Your task to perform on an android device: Clear the cart on amazon. Add usb-b to the cart on amazon Image 0: 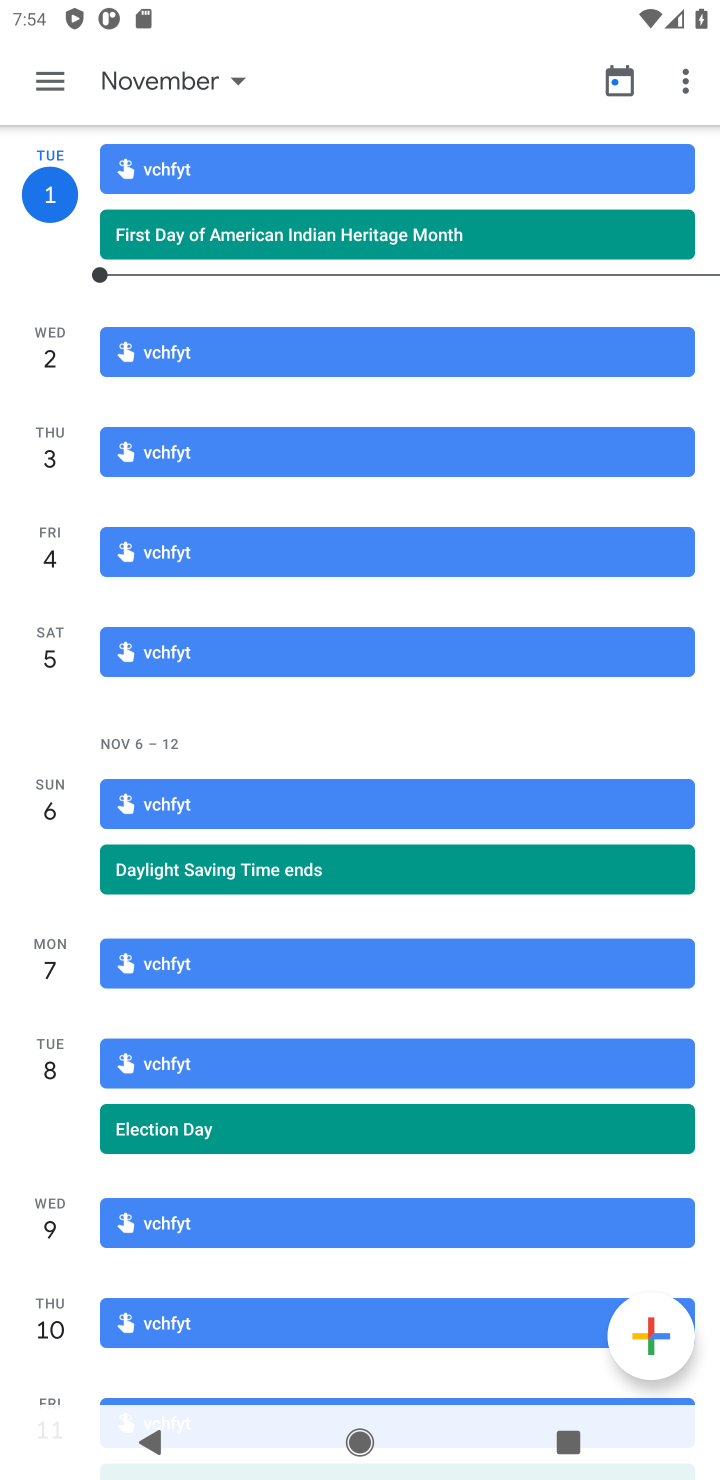
Step 0: press home button
Your task to perform on an android device: Clear the cart on amazon. Add usb-b to the cart on amazon Image 1: 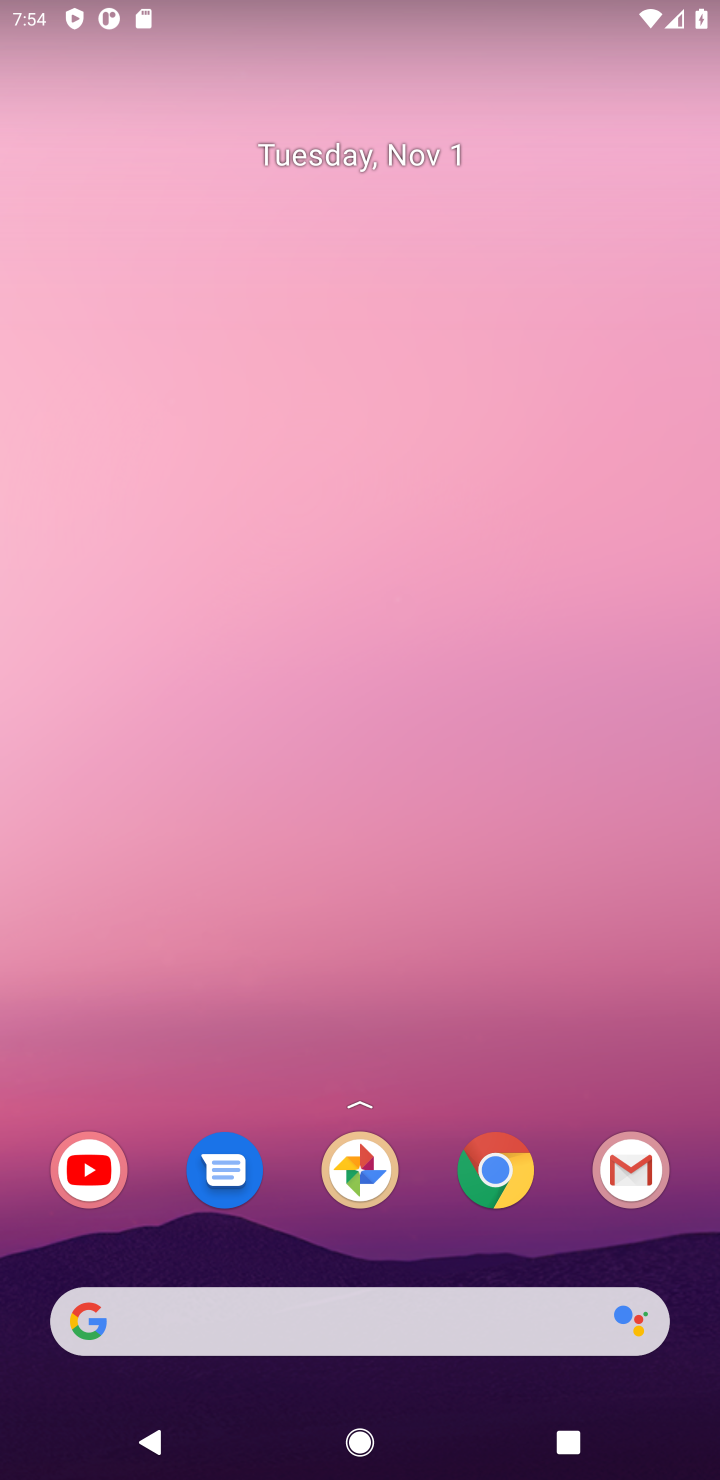
Step 1: click (485, 1169)
Your task to perform on an android device: Clear the cart on amazon. Add usb-b to the cart on amazon Image 2: 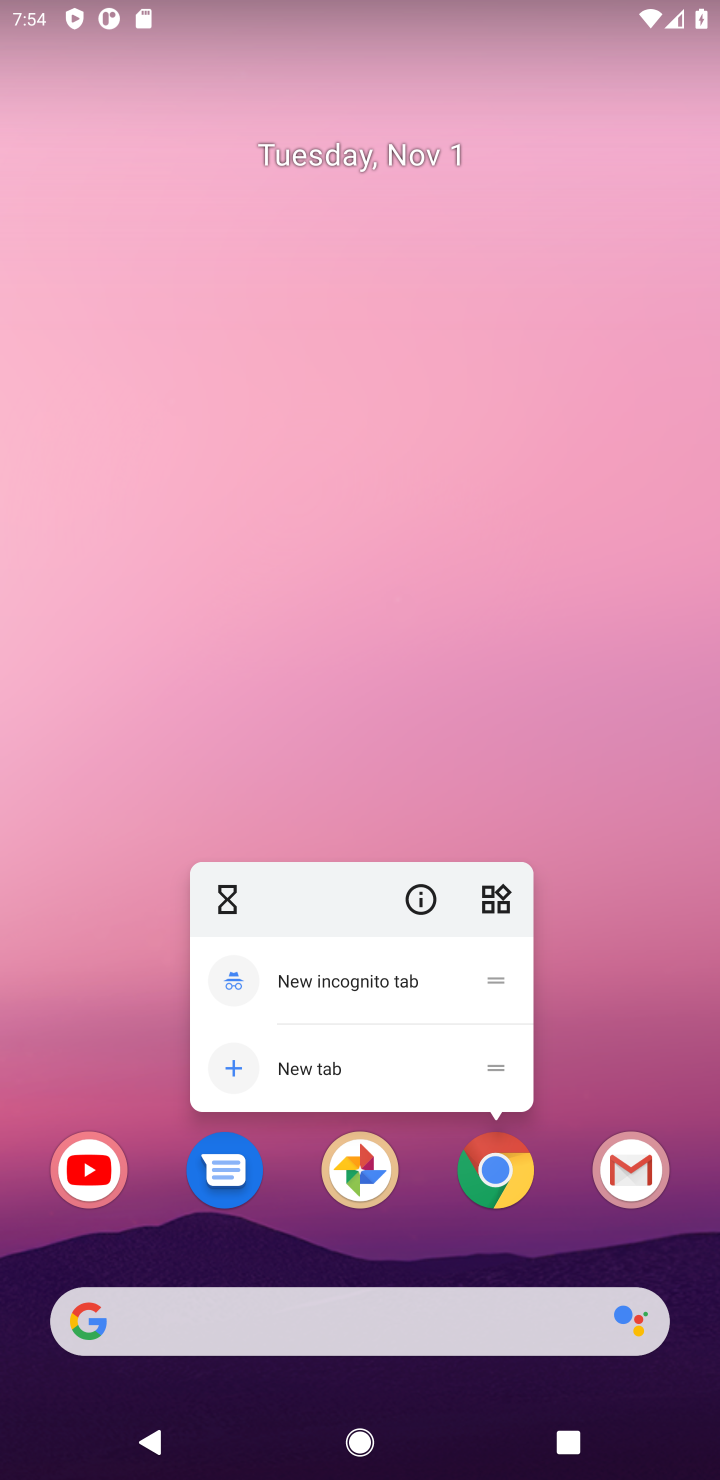
Step 2: click (520, 1193)
Your task to perform on an android device: Clear the cart on amazon. Add usb-b to the cart on amazon Image 3: 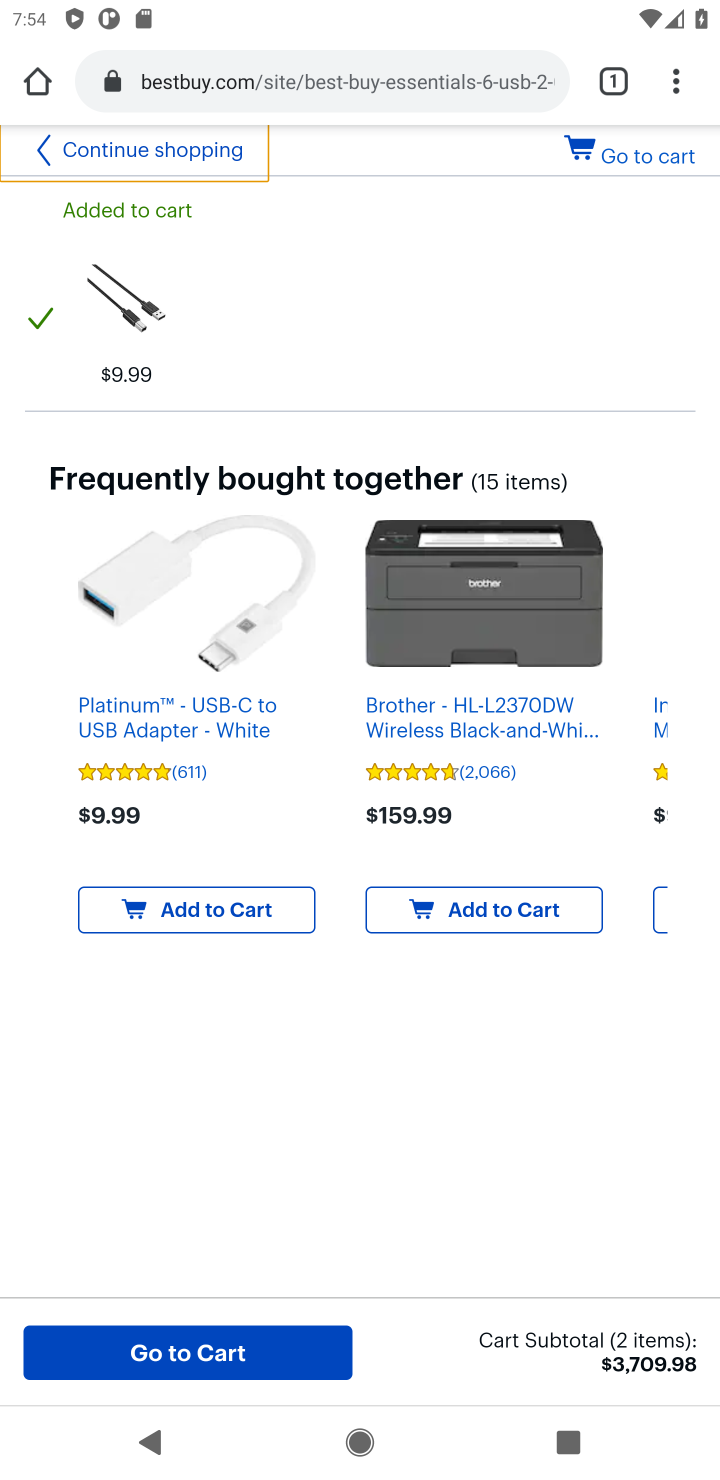
Step 3: click (418, 85)
Your task to perform on an android device: Clear the cart on amazon. Add usb-b to the cart on amazon Image 4: 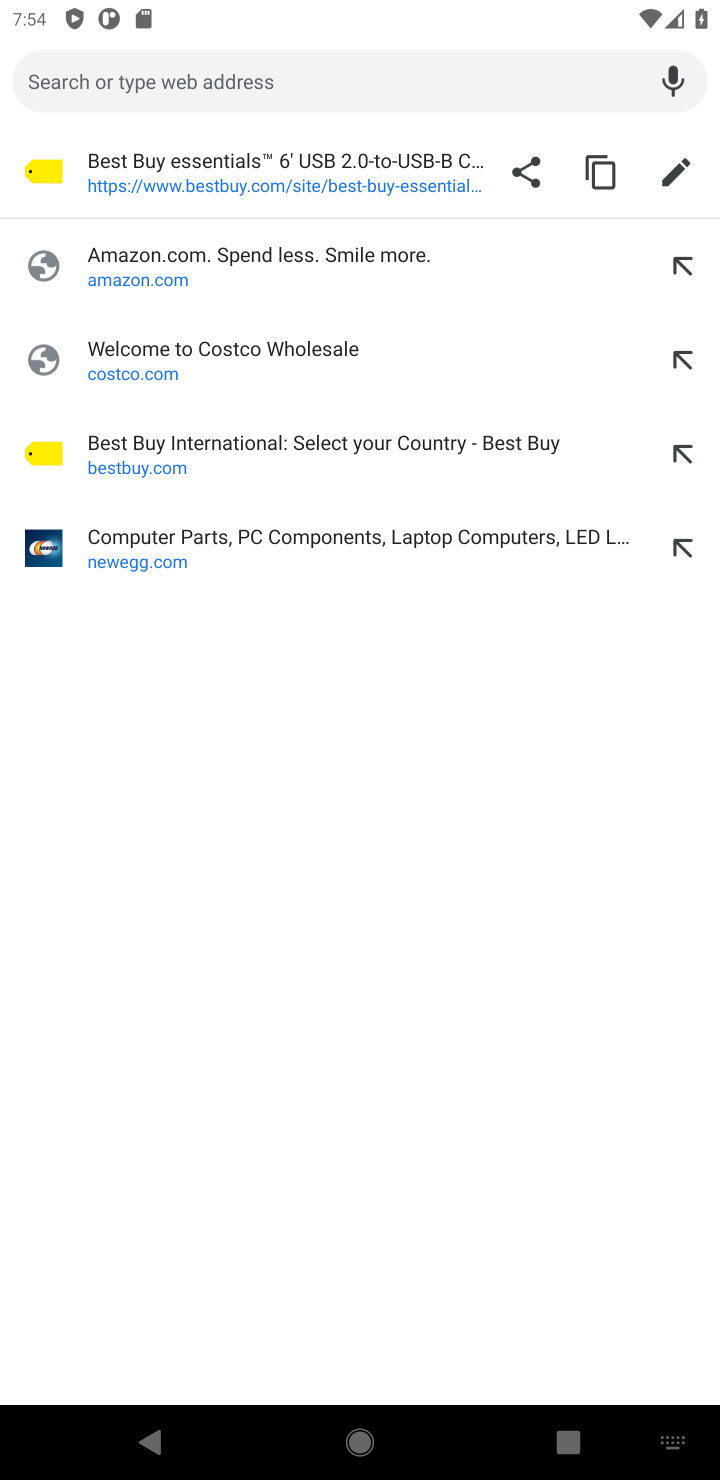
Step 4: type "amazon"
Your task to perform on an android device: Clear the cart on amazon. Add usb-b to the cart on amazon Image 5: 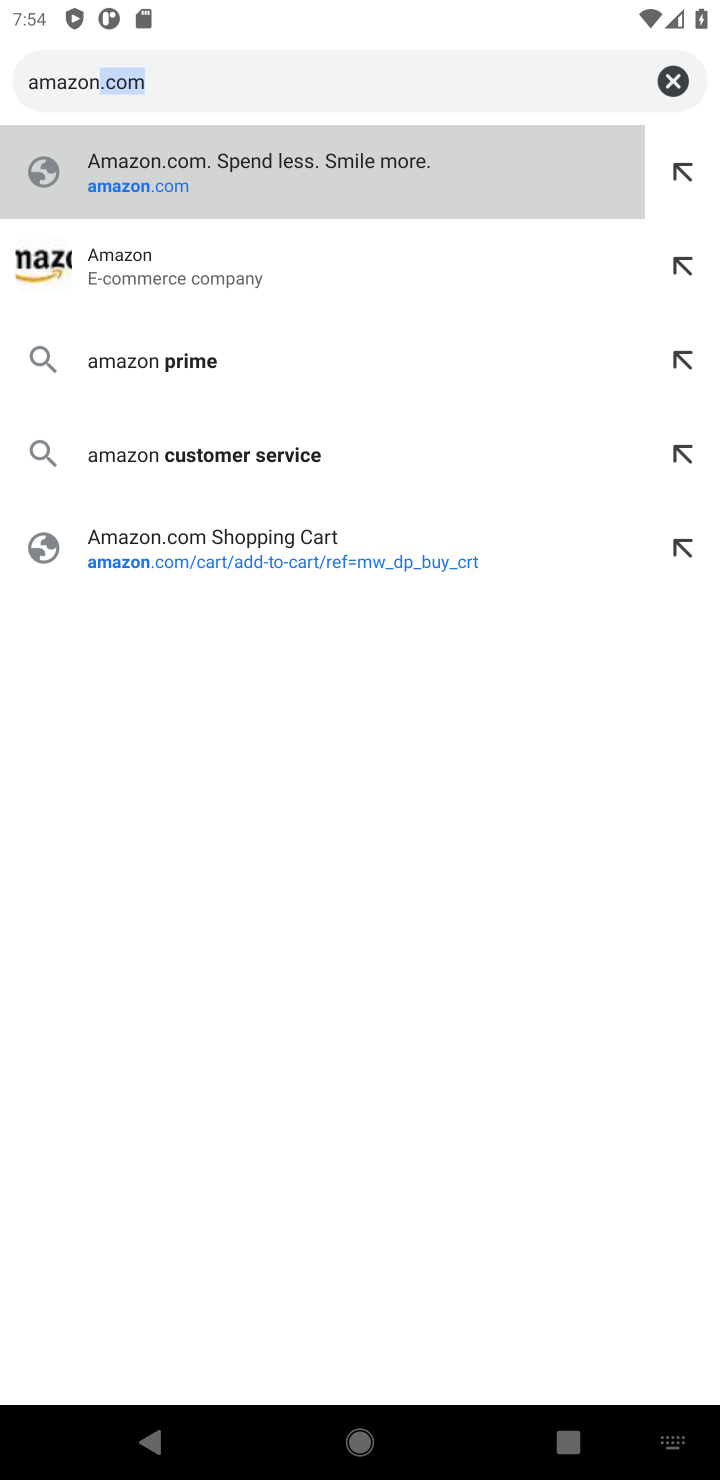
Step 5: type ""
Your task to perform on an android device: Clear the cart on amazon. Add usb-b to the cart on amazon Image 6: 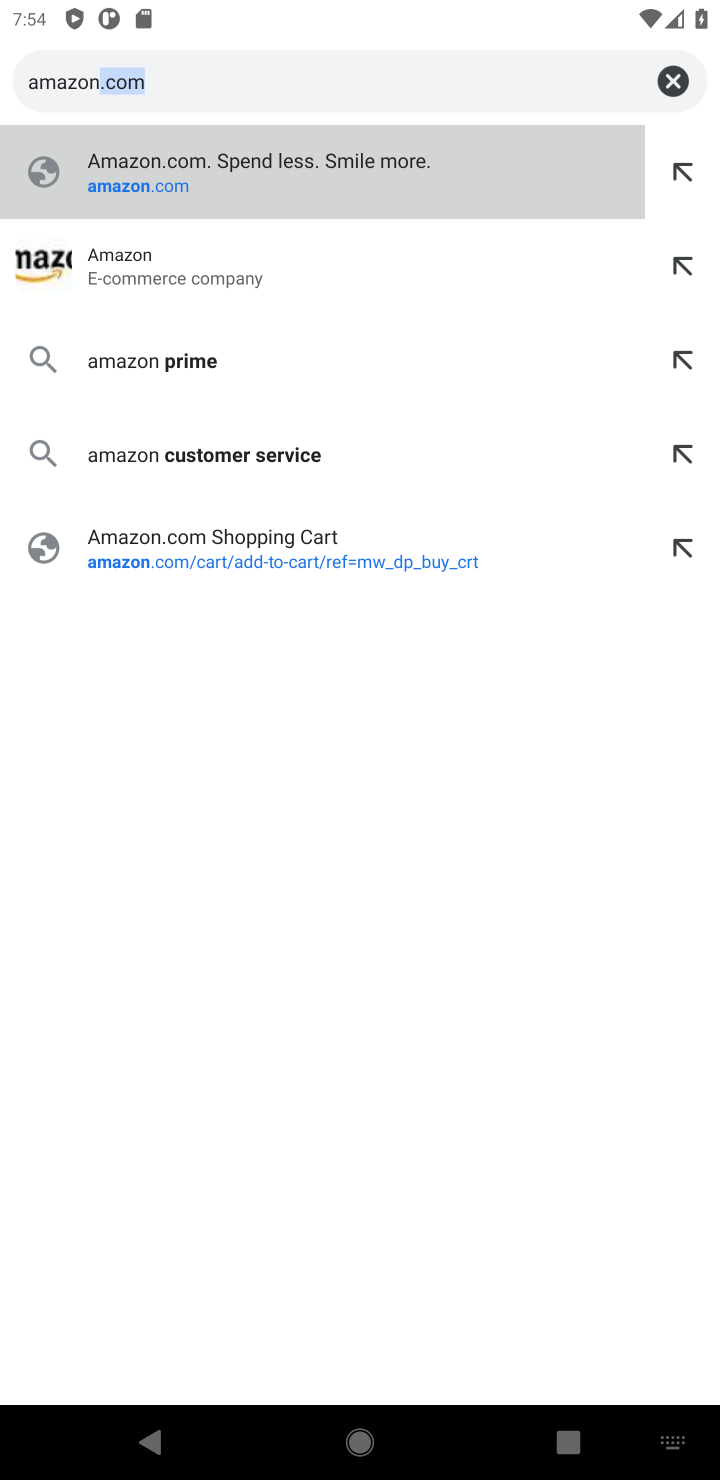
Step 6: press enter
Your task to perform on an android device: Clear the cart on amazon. Add usb-b to the cart on amazon Image 7: 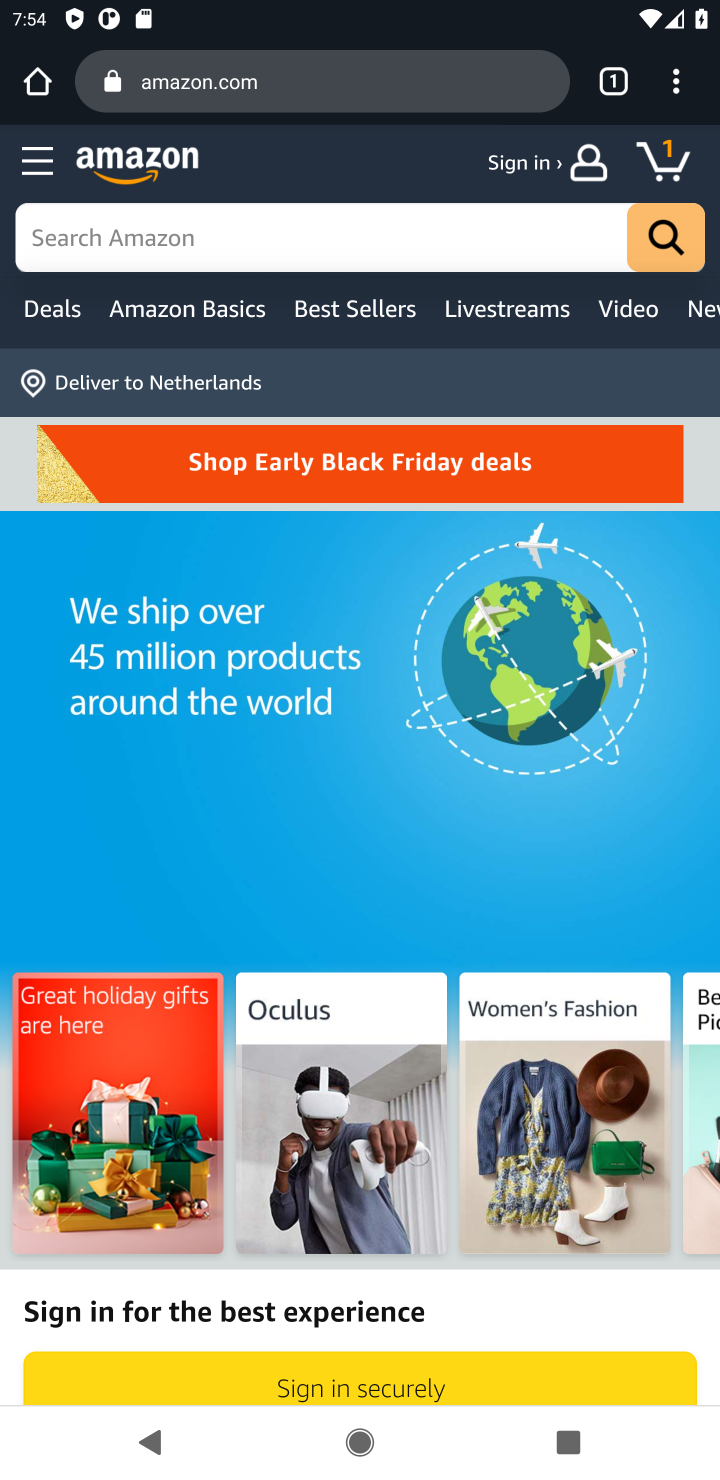
Step 7: click (658, 161)
Your task to perform on an android device: Clear the cart on amazon. Add usb-b to the cart on amazon Image 8: 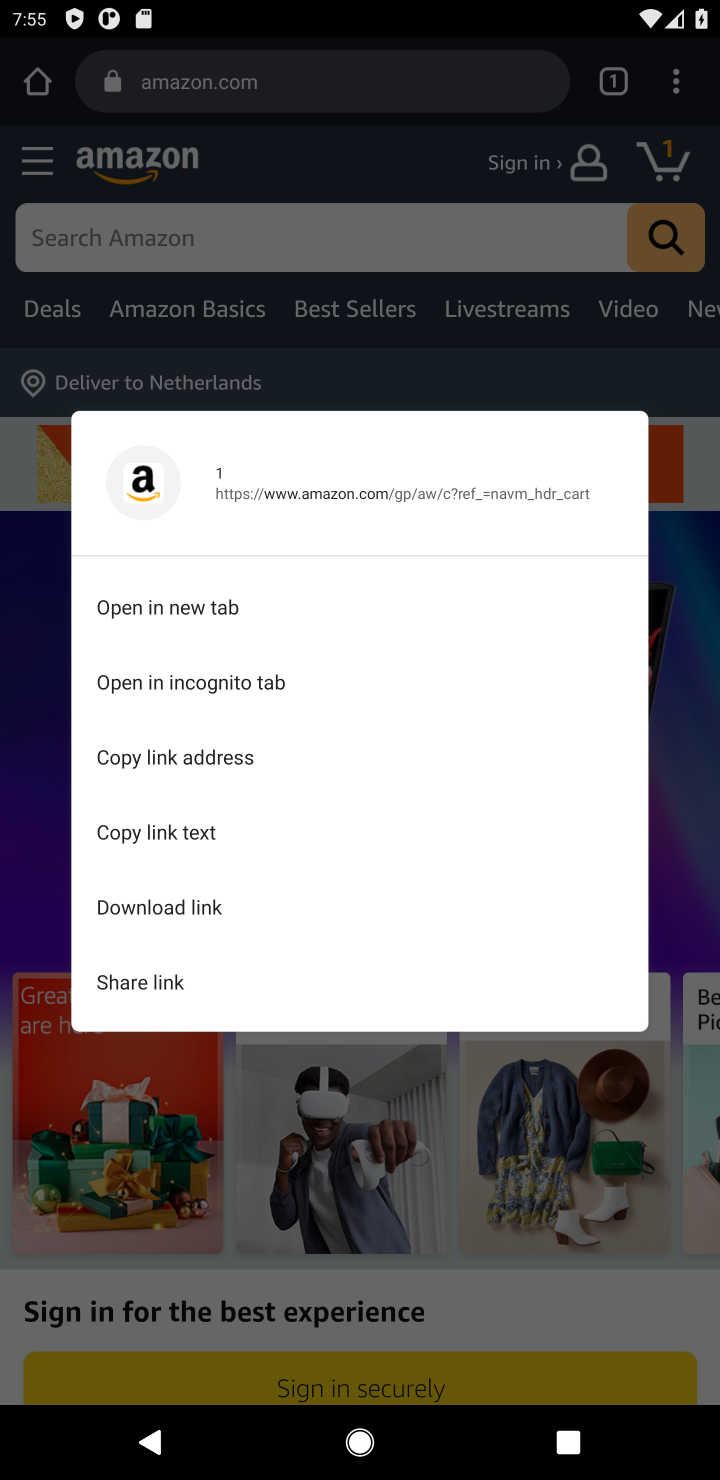
Step 8: click (525, 1042)
Your task to perform on an android device: Clear the cart on amazon. Add usb-b to the cart on amazon Image 9: 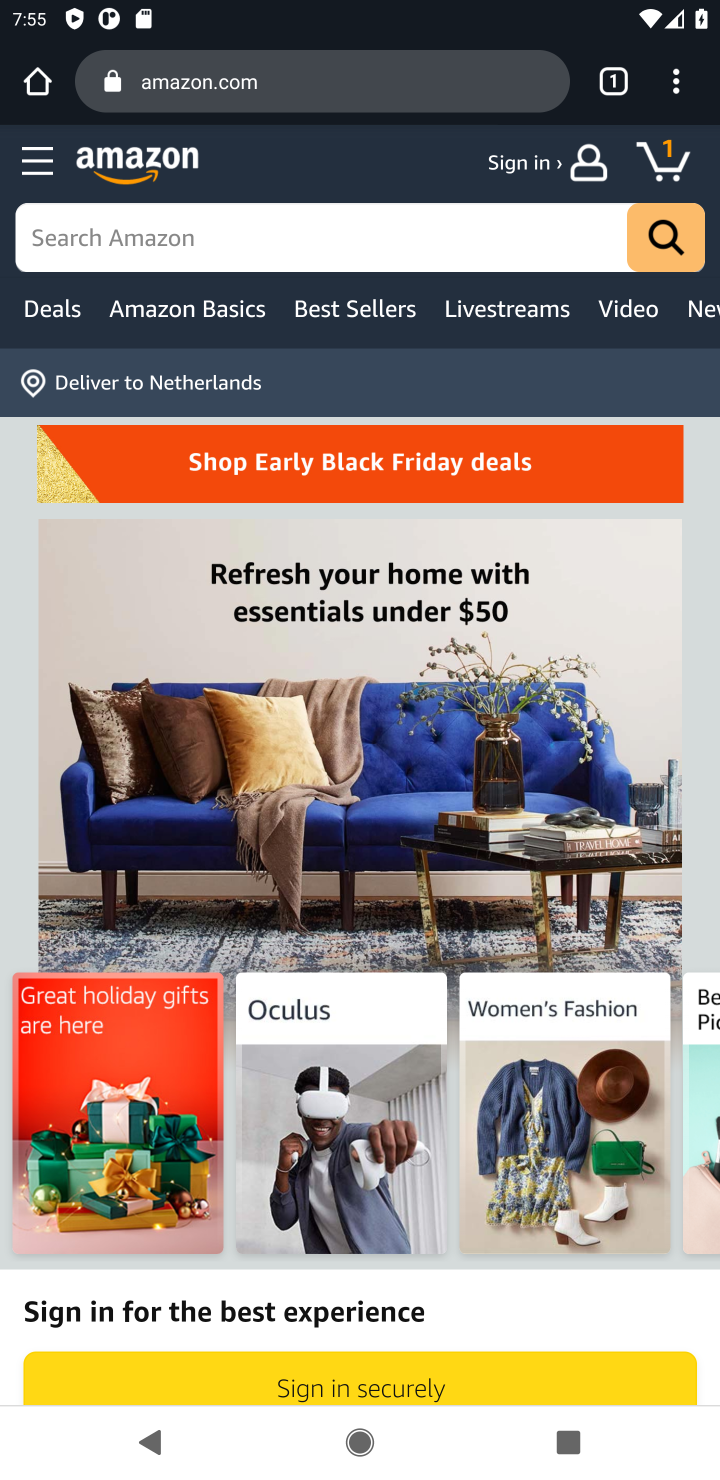
Step 9: click (657, 166)
Your task to perform on an android device: Clear the cart on amazon. Add usb-b to the cart on amazon Image 10: 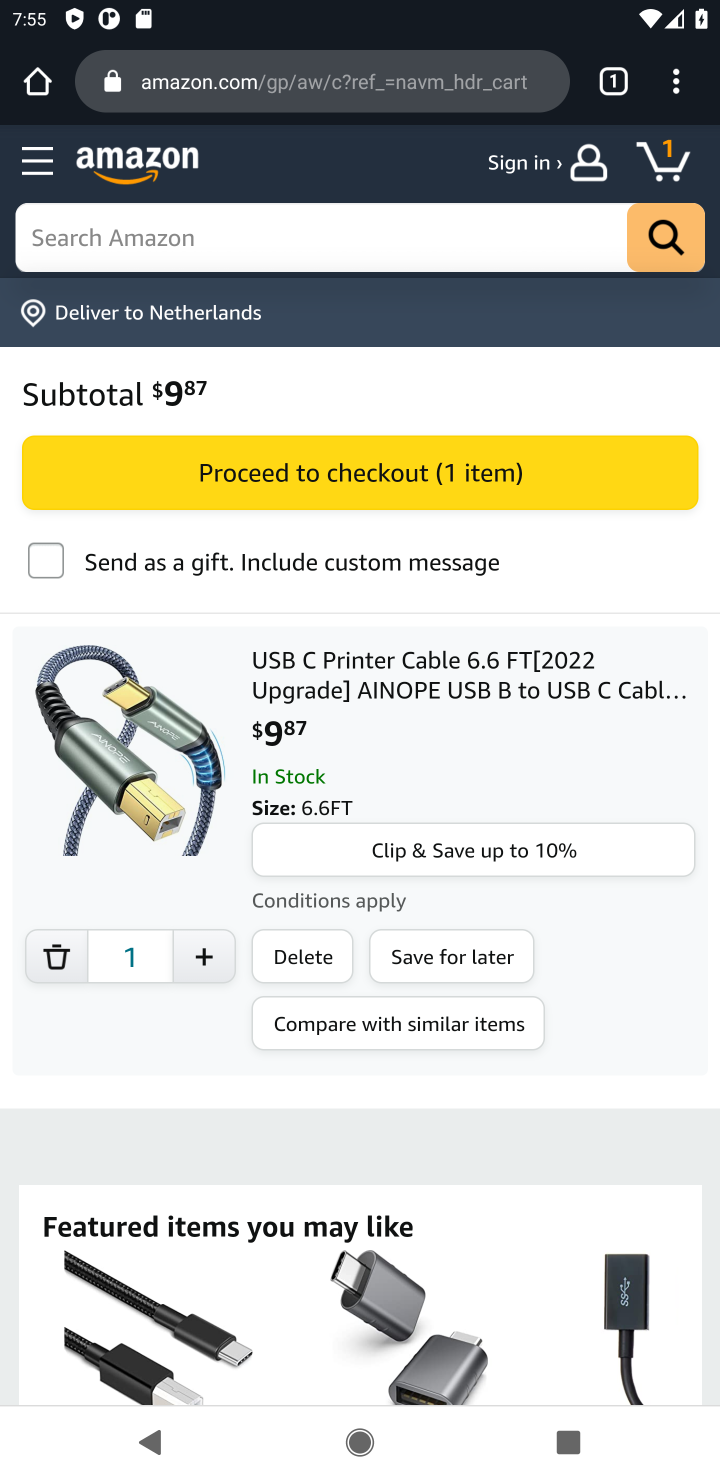
Step 10: click (68, 964)
Your task to perform on an android device: Clear the cart on amazon. Add usb-b to the cart on amazon Image 11: 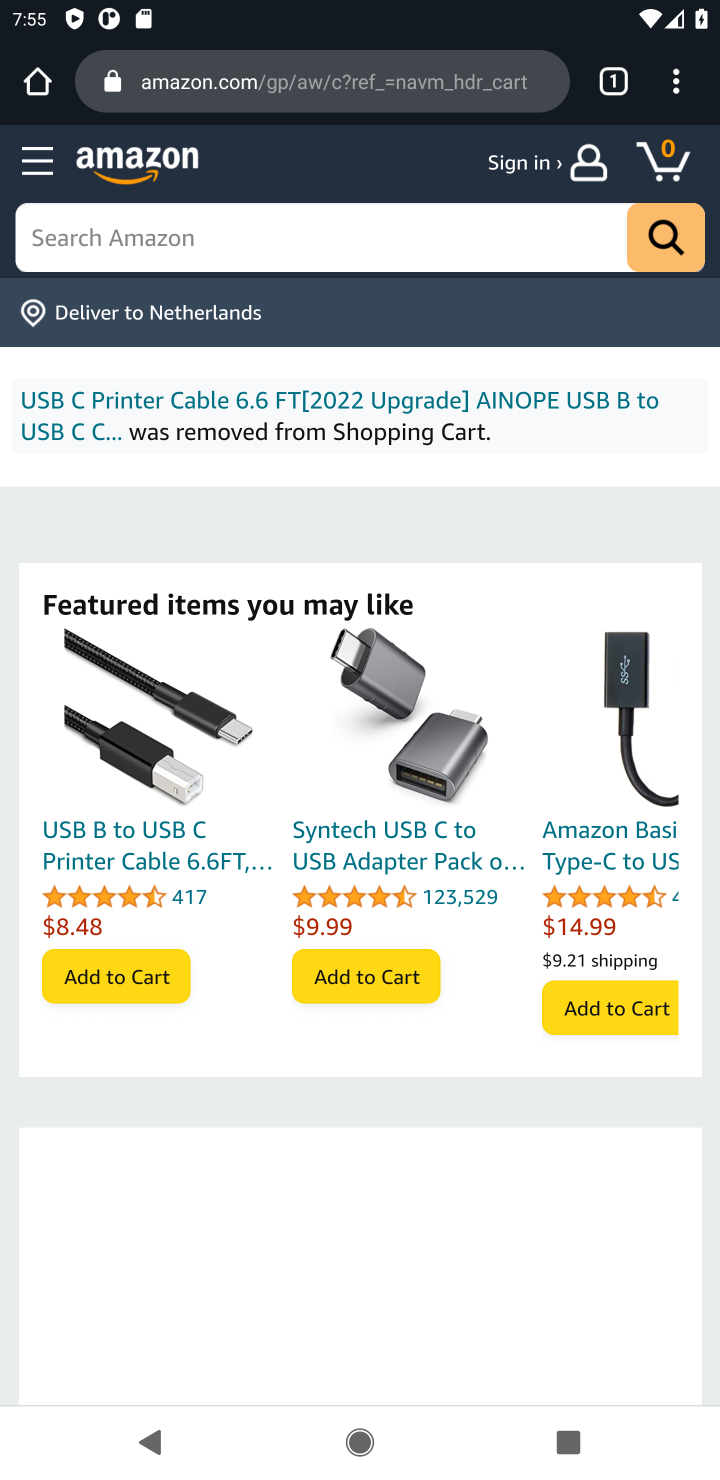
Step 11: click (428, 261)
Your task to perform on an android device: Clear the cart on amazon. Add usb-b to the cart on amazon Image 12: 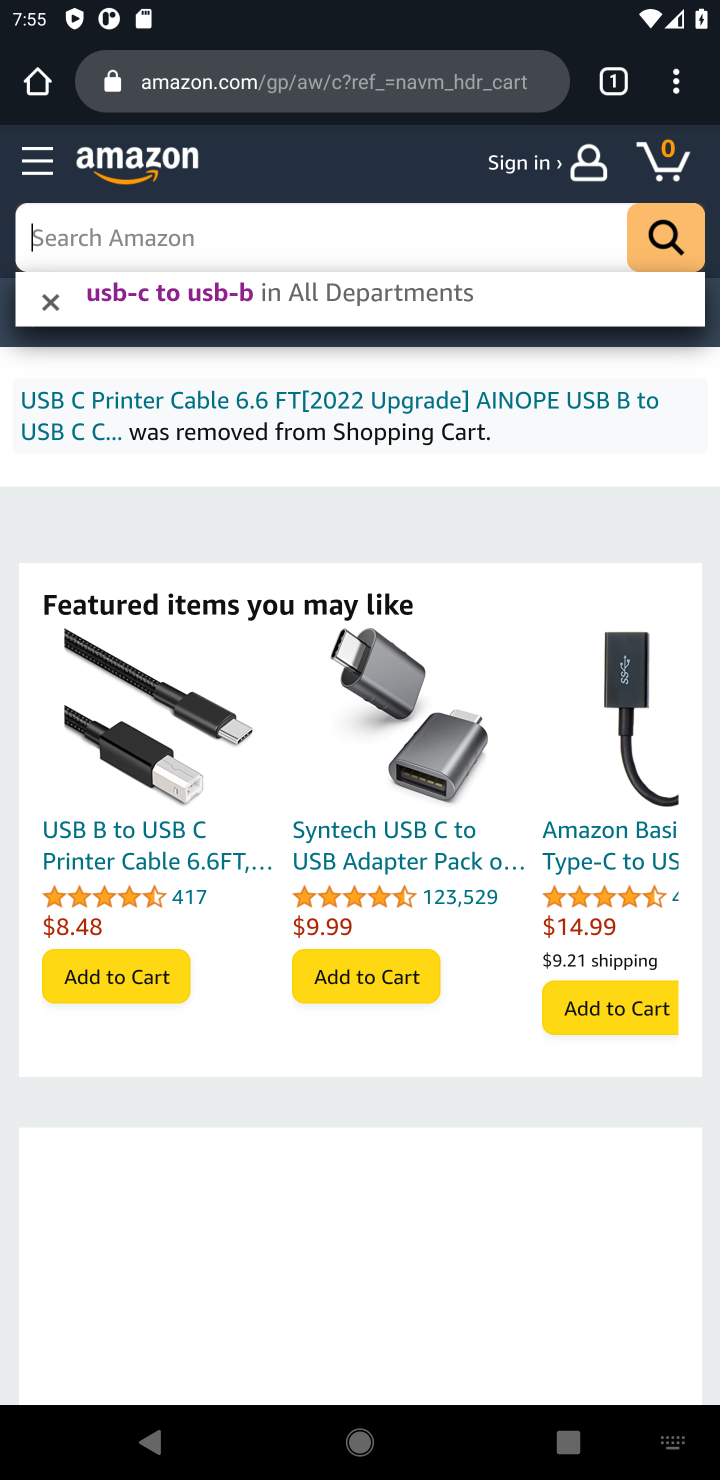
Step 12: type "usb-b"
Your task to perform on an android device: Clear the cart on amazon. Add usb-b to the cart on amazon Image 13: 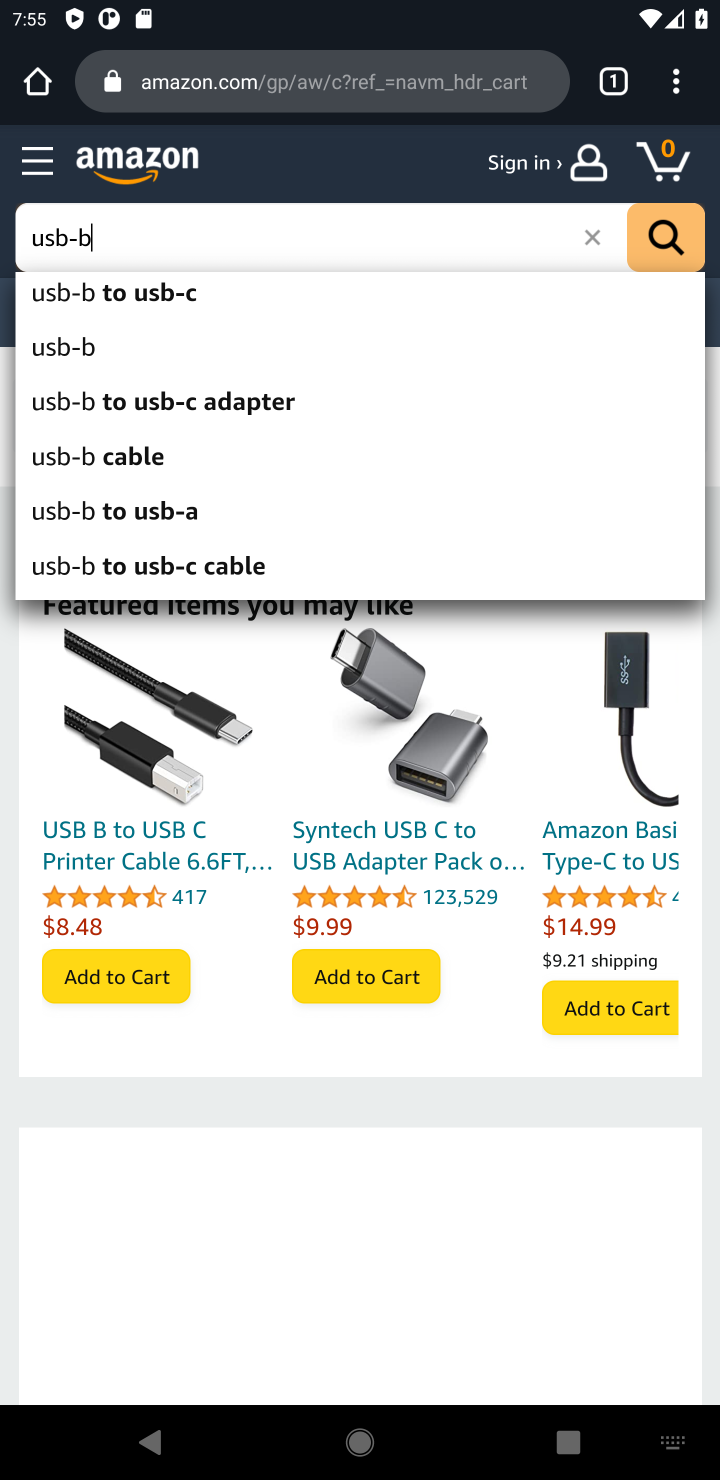
Step 13: press enter
Your task to perform on an android device: Clear the cart on amazon. Add usb-b to the cart on amazon Image 14: 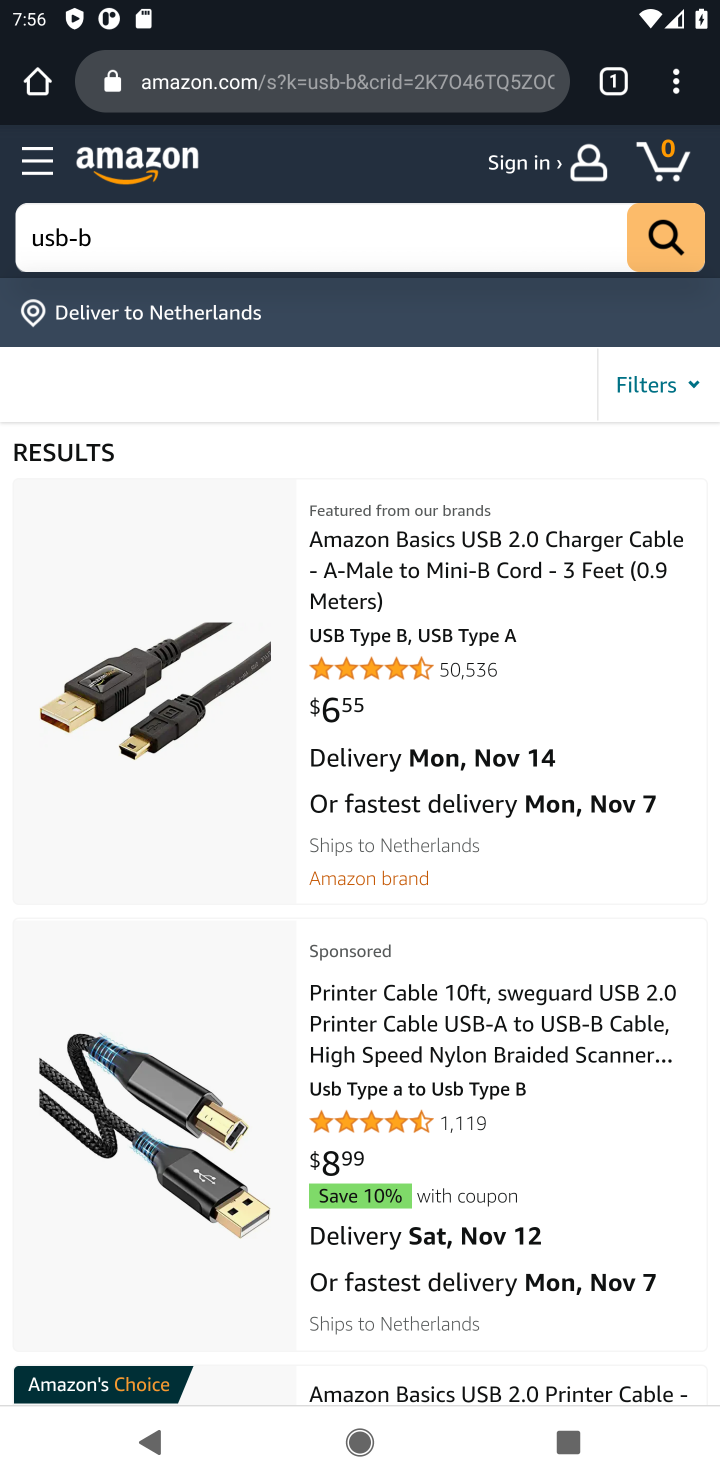
Step 14: click (501, 933)
Your task to perform on an android device: Clear the cart on amazon. Add usb-b to the cart on amazon Image 15: 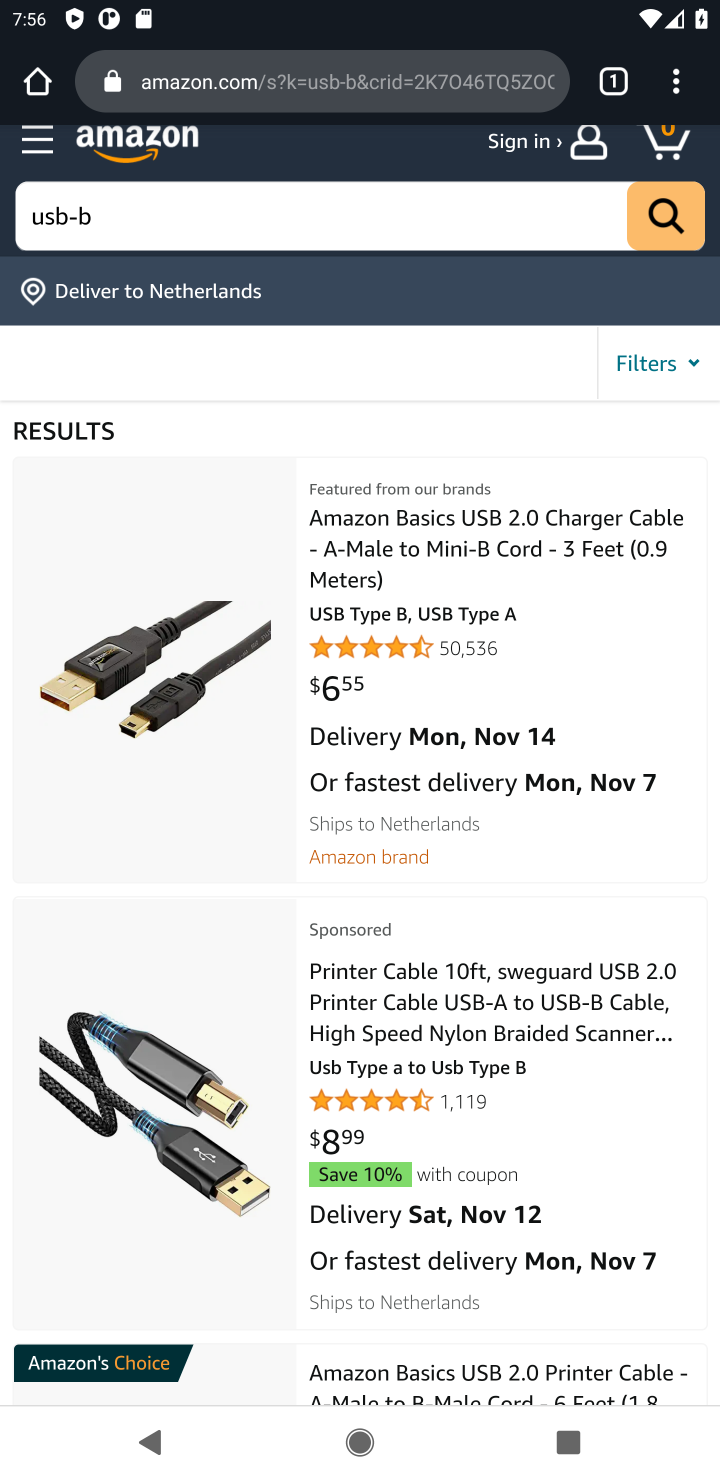
Step 15: click (439, 537)
Your task to perform on an android device: Clear the cart on amazon. Add usb-b to the cart on amazon Image 16: 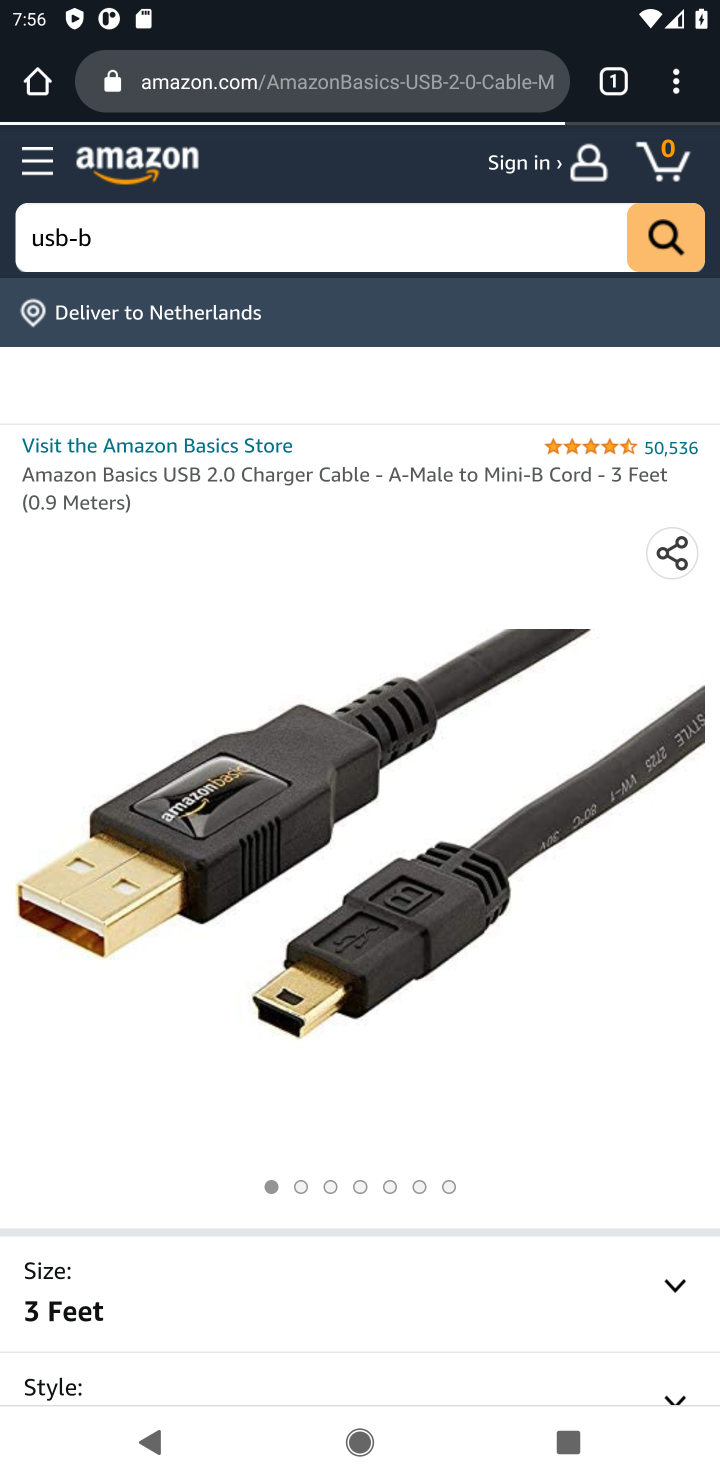
Step 16: drag from (570, 1157) to (474, 428)
Your task to perform on an android device: Clear the cart on amazon. Add usb-b to the cart on amazon Image 17: 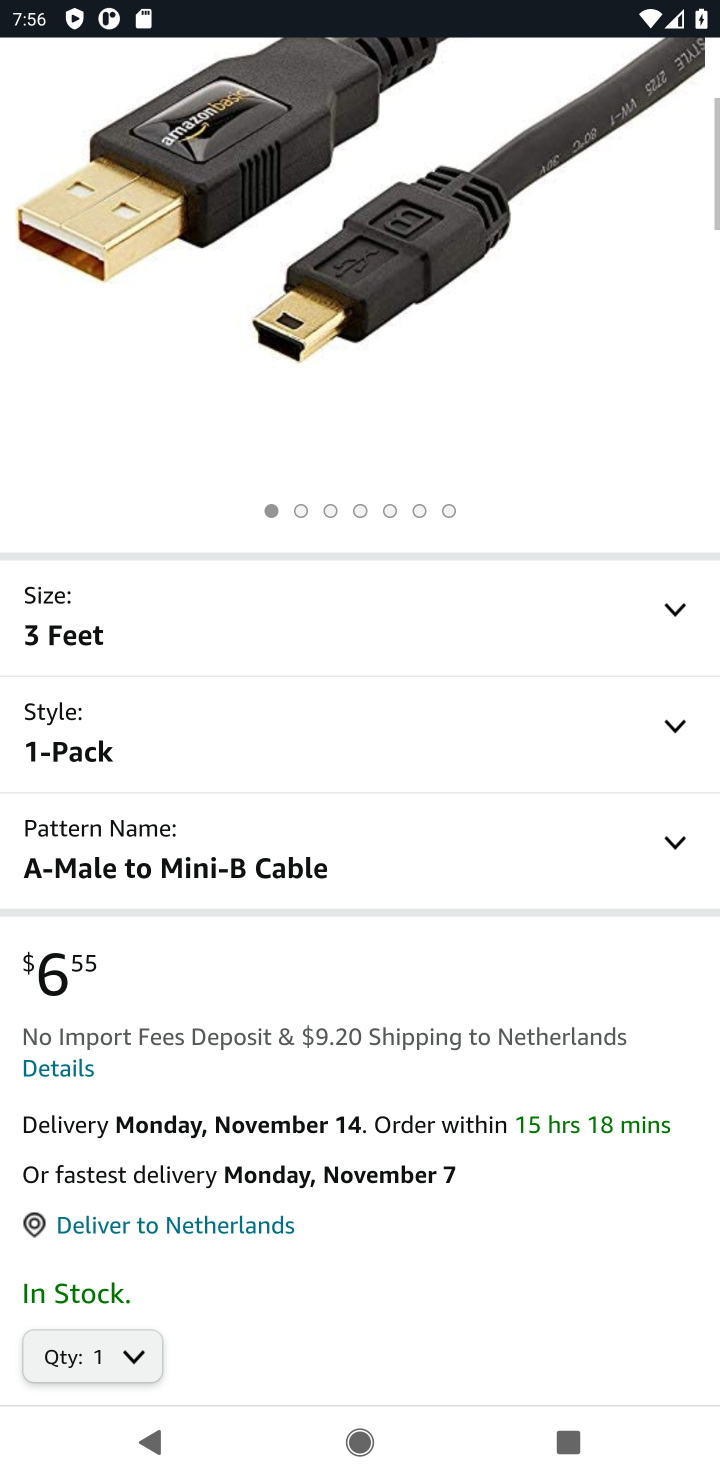
Step 17: drag from (432, 1156) to (400, 582)
Your task to perform on an android device: Clear the cart on amazon. Add usb-b to the cart on amazon Image 18: 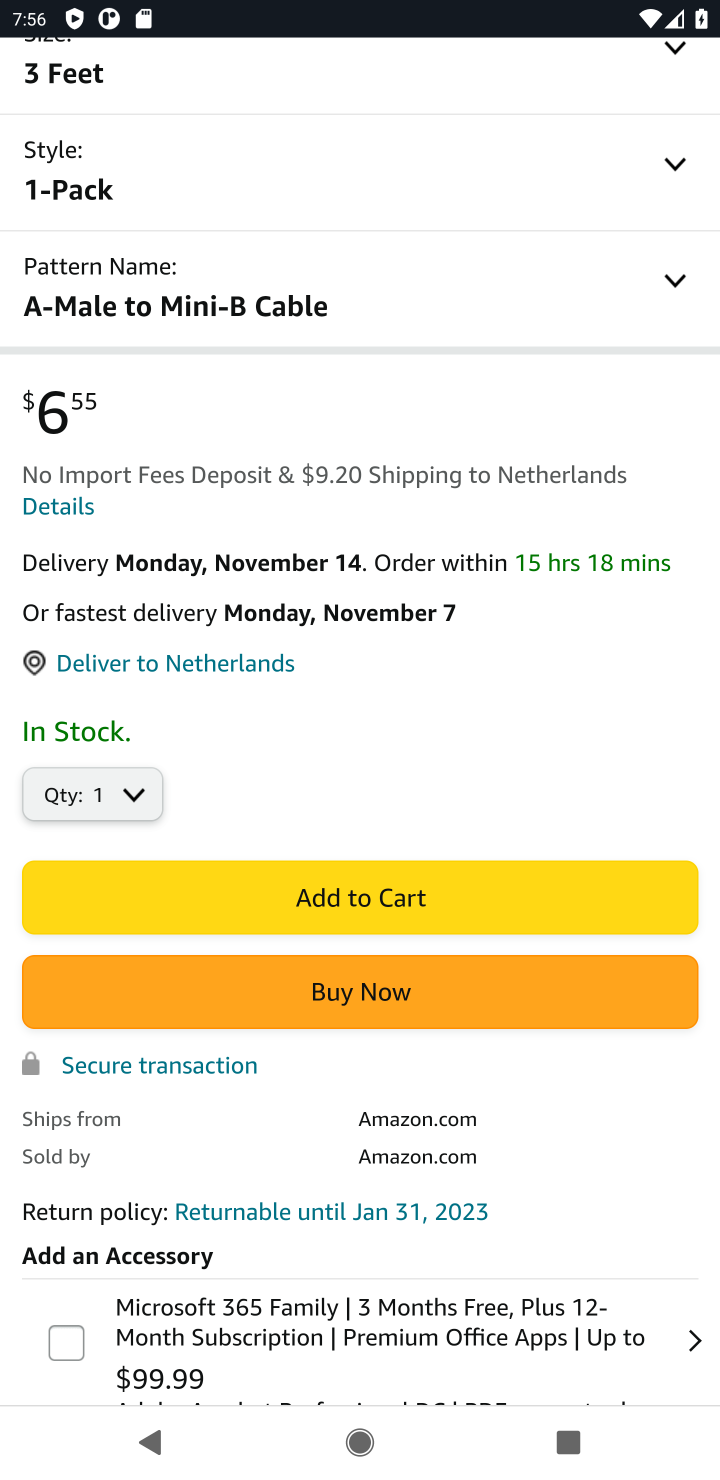
Step 18: click (429, 888)
Your task to perform on an android device: Clear the cart on amazon. Add usb-b to the cart on amazon Image 19: 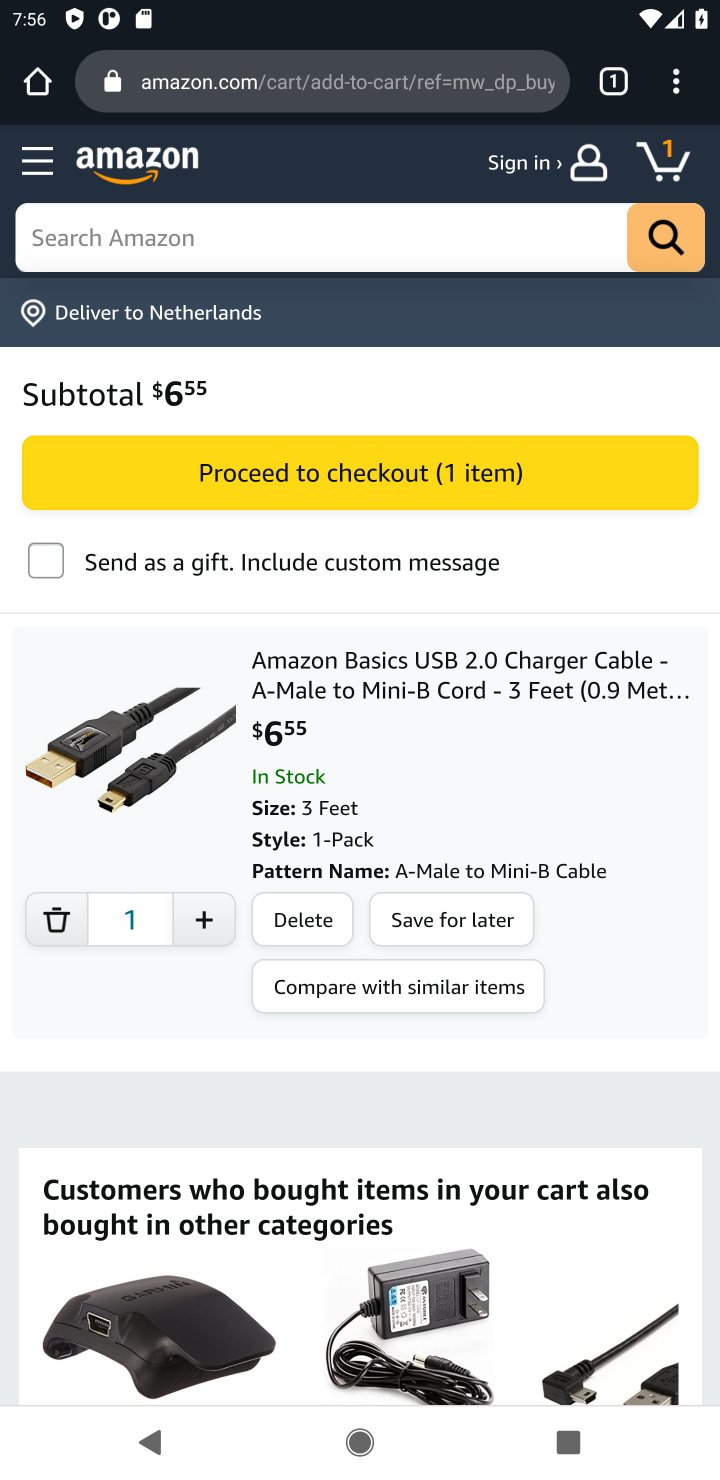
Step 19: task complete